Your task to perform on an android device: change keyboard looks Image 0: 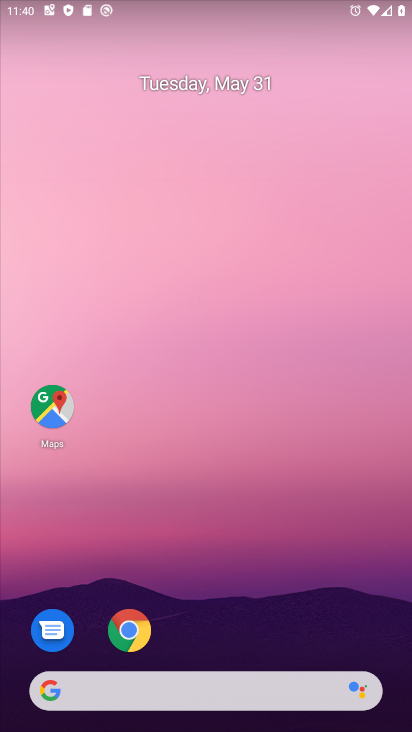
Step 0: drag from (165, 627) to (194, 39)
Your task to perform on an android device: change keyboard looks Image 1: 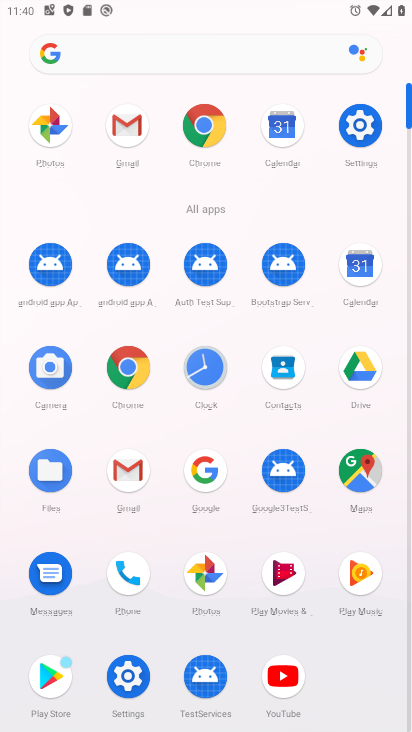
Step 1: click (356, 123)
Your task to perform on an android device: change keyboard looks Image 2: 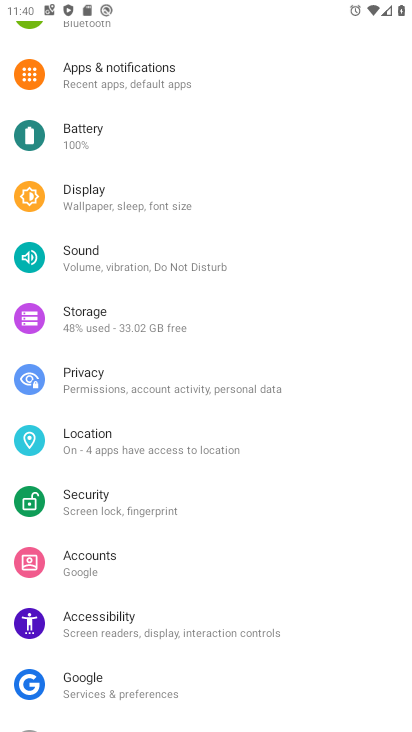
Step 2: drag from (184, 698) to (184, 184)
Your task to perform on an android device: change keyboard looks Image 3: 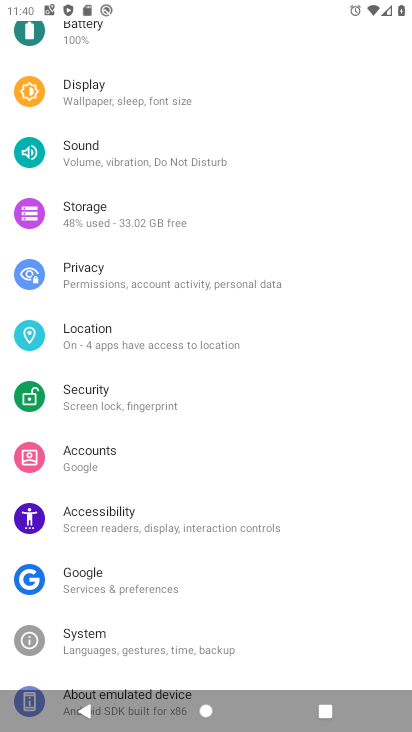
Step 3: click (121, 644)
Your task to perform on an android device: change keyboard looks Image 4: 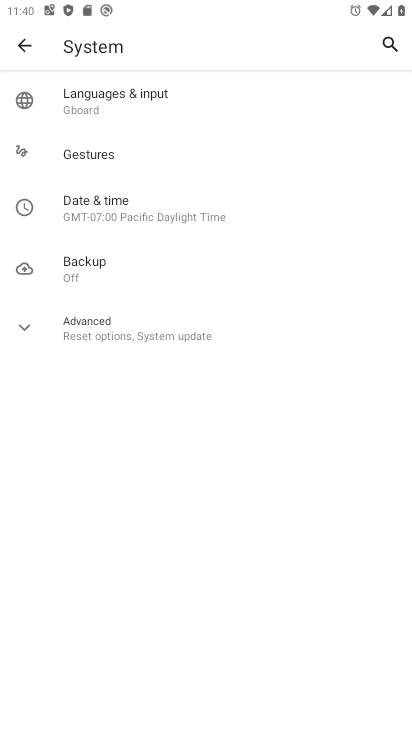
Step 4: click (112, 100)
Your task to perform on an android device: change keyboard looks Image 5: 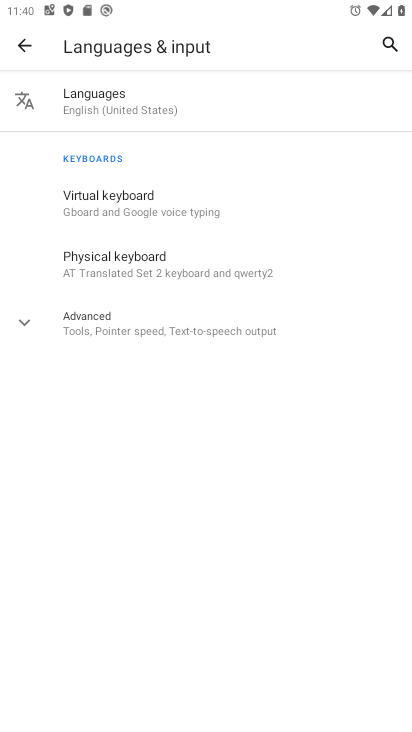
Step 5: click (134, 210)
Your task to perform on an android device: change keyboard looks Image 6: 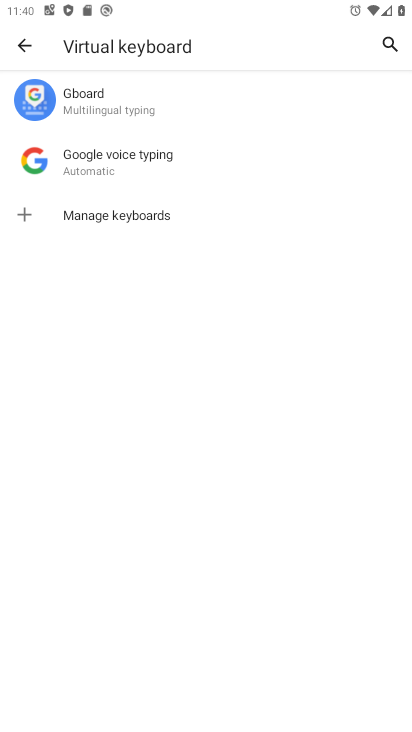
Step 6: click (88, 112)
Your task to perform on an android device: change keyboard looks Image 7: 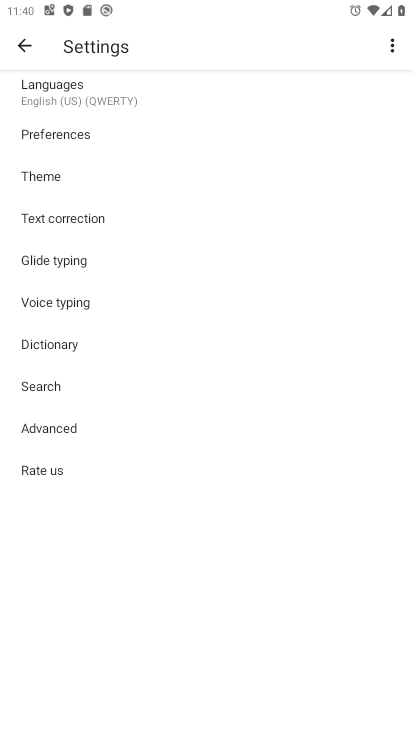
Step 7: click (58, 183)
Your task to perform on an android device: change keyboard looks Image 8: 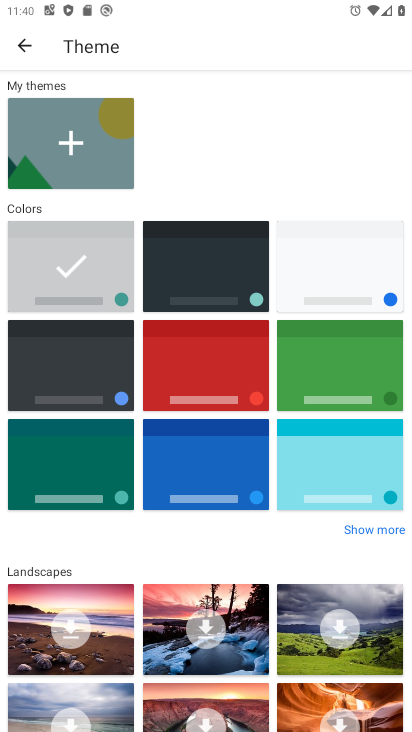
Step 8: click (192, 258)
Your task to perform on an android device: change keyboard looks Image 9: 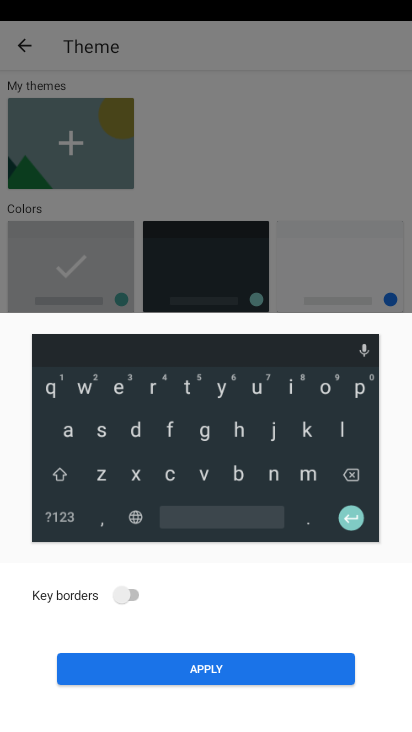
Step 9: click (312, 453)
Your task to perform on an android device: change keyboard looks Image 10: 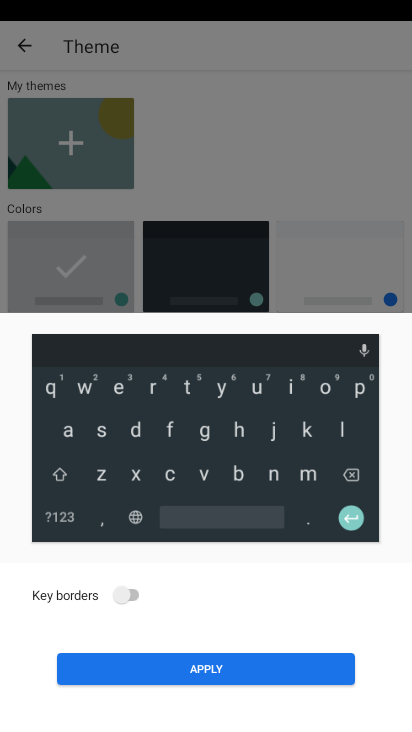
Step 10: click (247, 679)
Your task to perform on an android device: change keyboard looks Image 11: 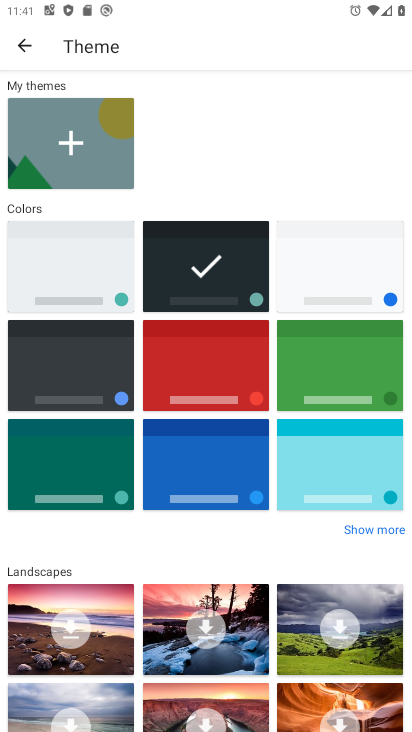
Step 11: task complete